Your task to perform on an android device: Search for the new nike air max 270 on Nike.com Image 0: 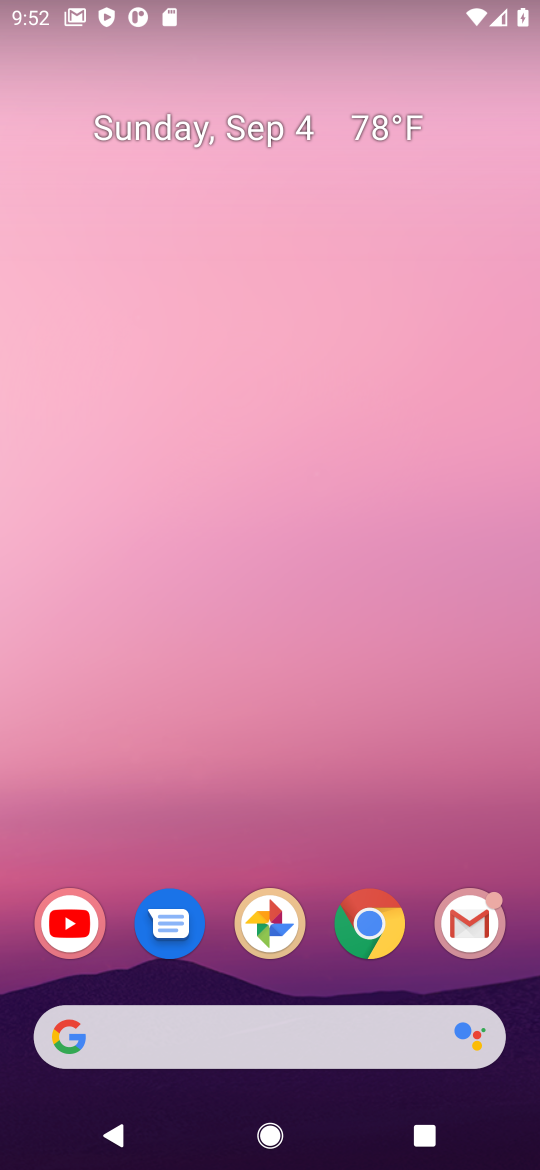
Step 0: click (229, 1066)
Your task to perform on an android device: Search for the new nike air max 270 on Nike.com Image 1: 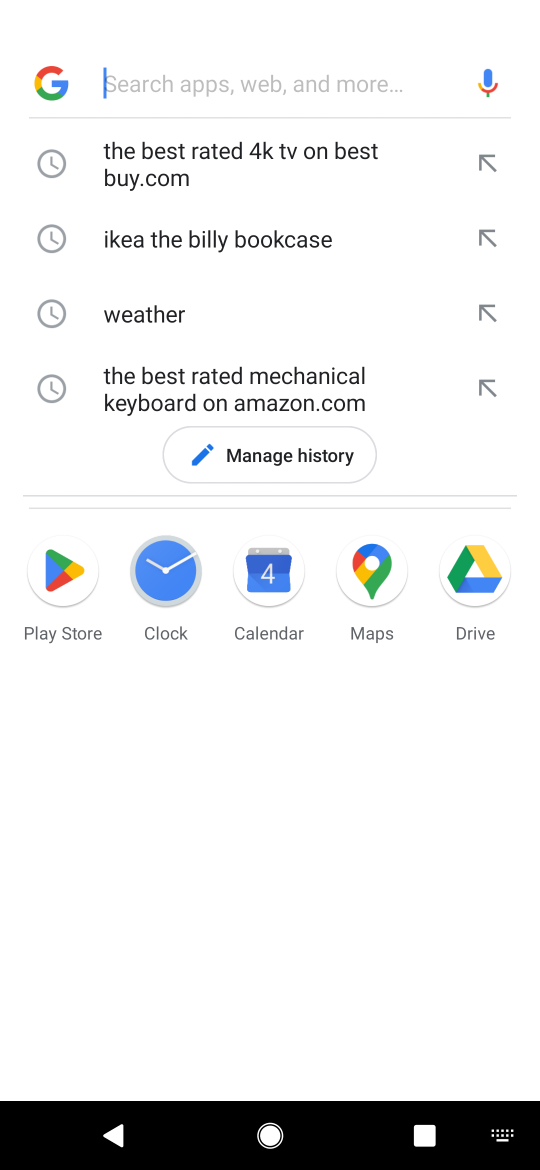
Step 1: type " the new nike air max 270 on Nike.com"
Your task to perform on an android device: Search for the new nike air max 270 on Nike.com Image 2: 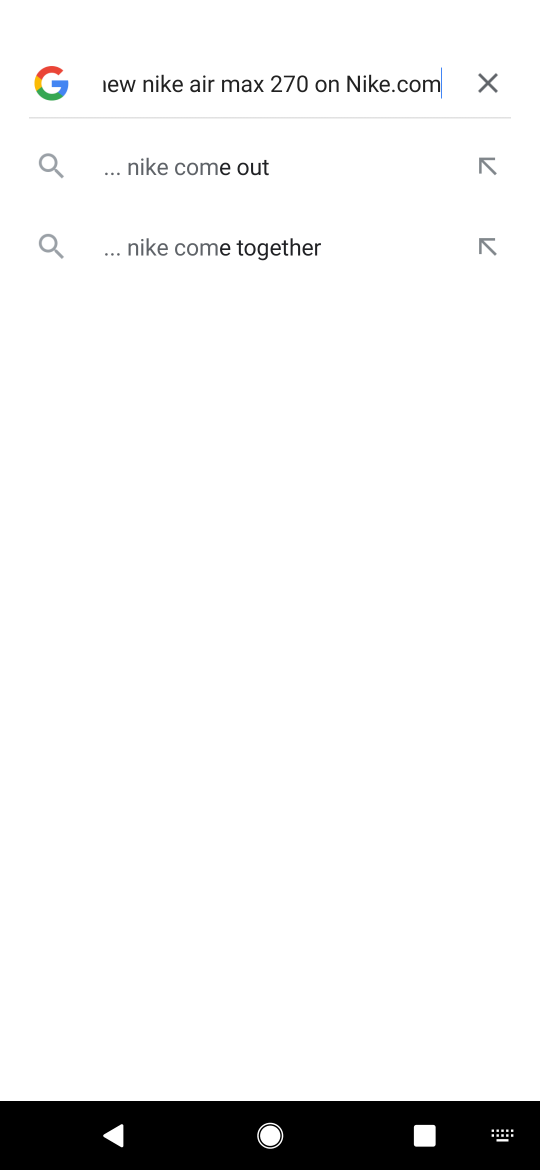
Step 2: task complete